Your task to perform on an android device: turn off location history Image 0: 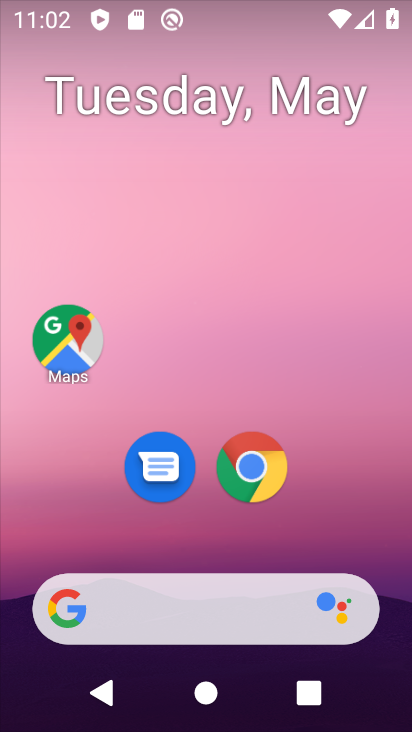
Step 0: drag from (335, 492) to (213, 21)
Your task to perform on an android device: turn off location history Image 1: 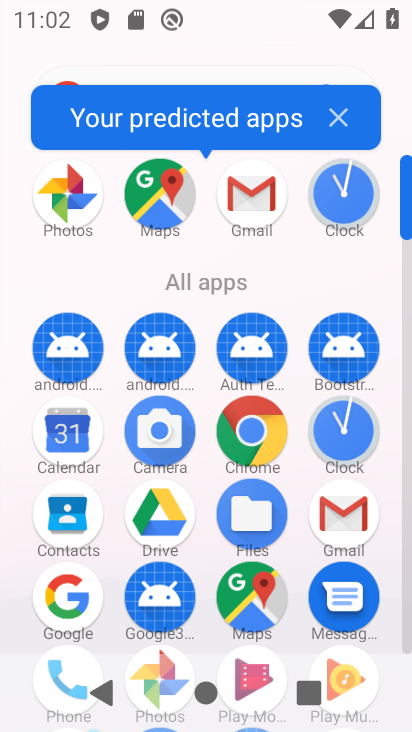
Step 1: drag from (20, 506) to (12, 239)
Your task to perform on an android device: turn off location history Image 2: 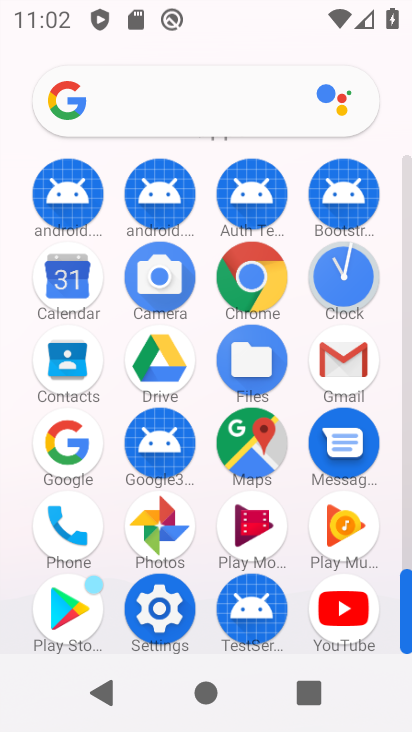
Step 2: click (159, 610)
Your task to perform on an android device: turn off location history Image 3: 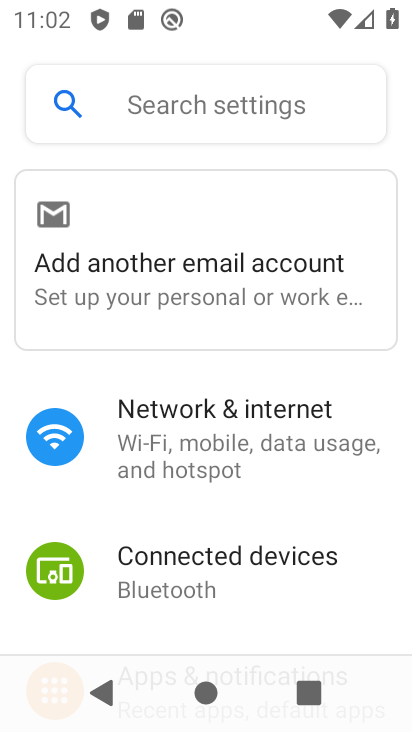
Step 3: drag from (262, 579) to (275, 194)
Your task to perform on an android device: turn off location history Image 4: 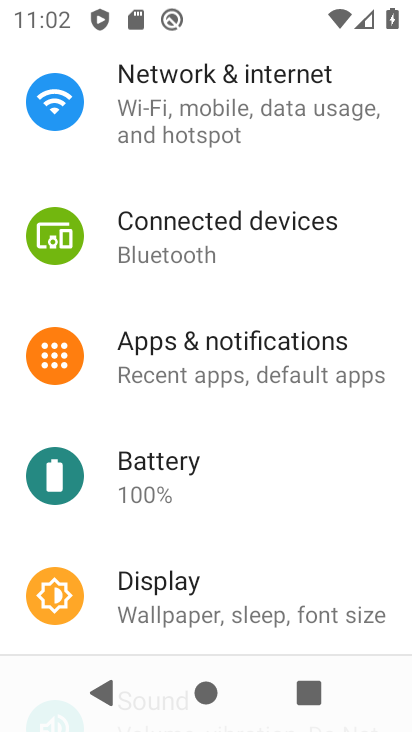
Step 4: drag from (267, 574) to (313, 144)
Your task to perform on an android device: turn off location history Image 5: 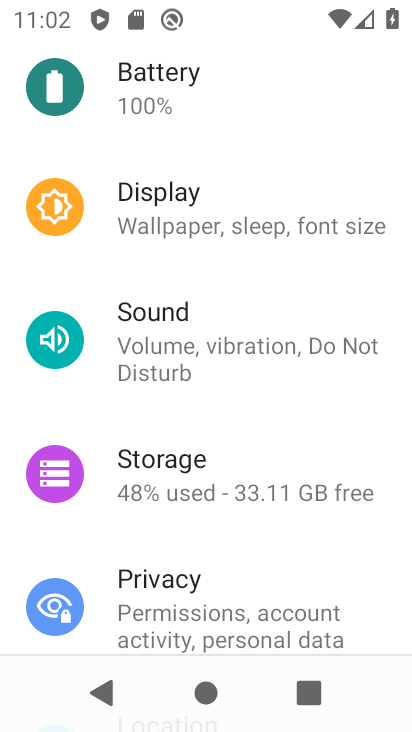
Step 5: drag from (267, 521) to (270, 180)
Your task to perform on an android device: turn off location history Image 6: 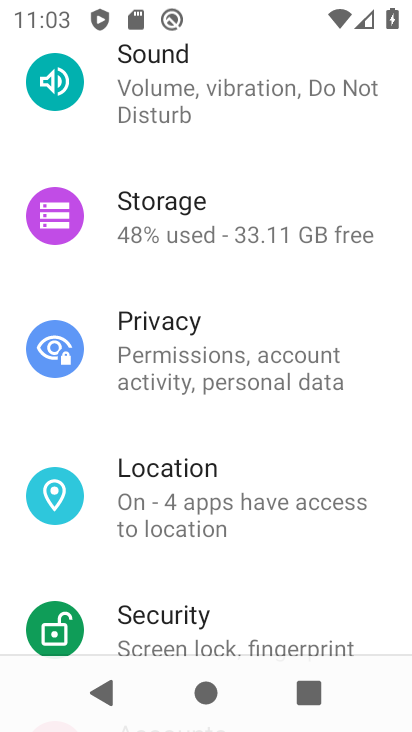
Step 6: click (220, 500)
Your task to perform on an android device: turn off location history Image 7: 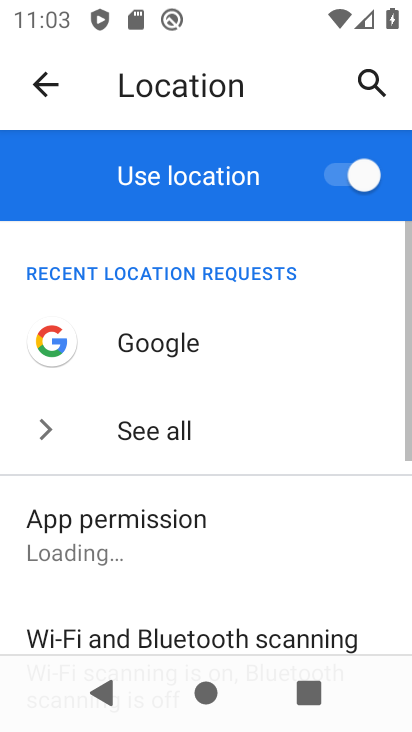
Step 7: drag from (226, 562) to (271, 145)
Your task to perform on an android device: turn off location history Image 8: 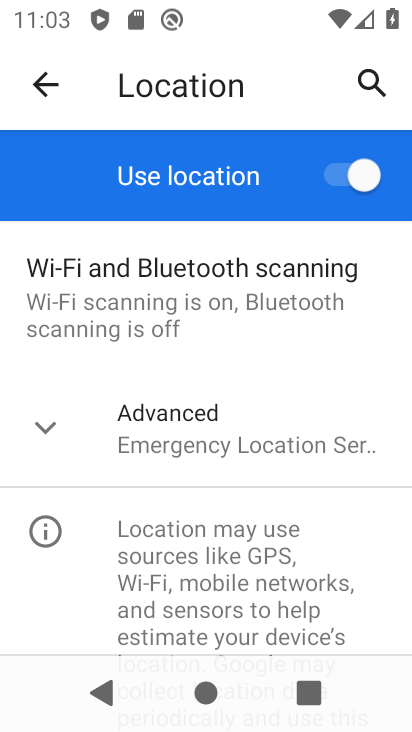
Step 8: click (58, 418)
Your task to perform on an android device: turn off location history Image 9: 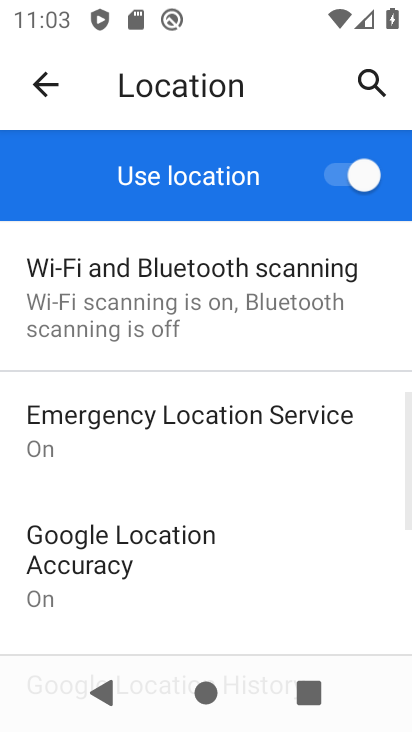
Step 9: drag from (279, 586) to (298, 199)
Your task to perform on an android device: turn off location history Image 10: 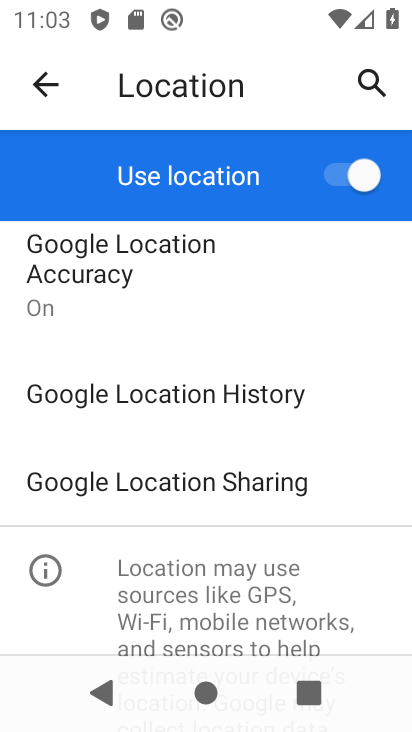
Step 10: click (243, 399)
Your task to perform on an android device: turn off location history Image 11: 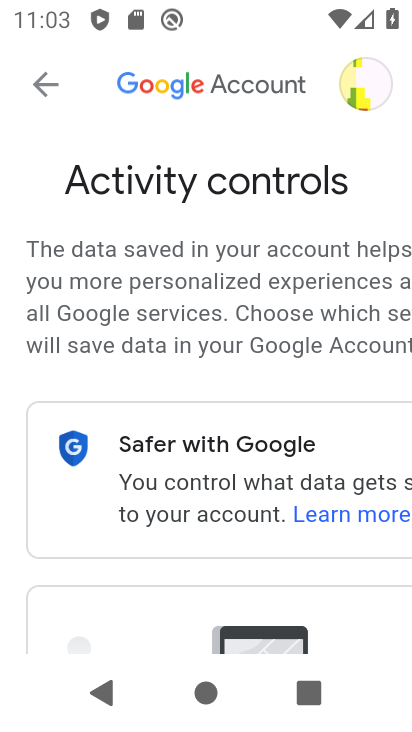
Step 11: task complete